Your task to perform on an android device: turn off airplane mode Image 0: 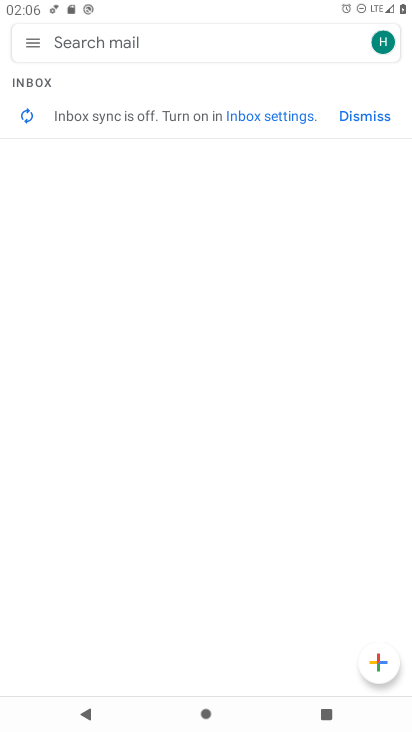
Step 0: press home button
Your task to perform on an android device: turn off airplane mode Image 1: 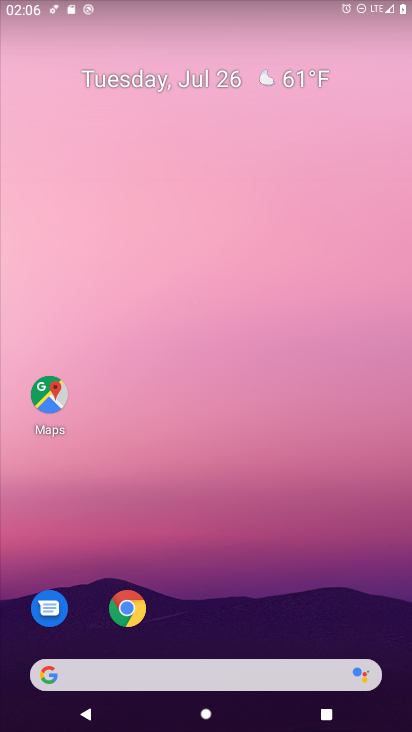
Step 1: drag from (360, 60) to (263, 413)
Your task to perform on an android device: turn off airplane mode Image 2: 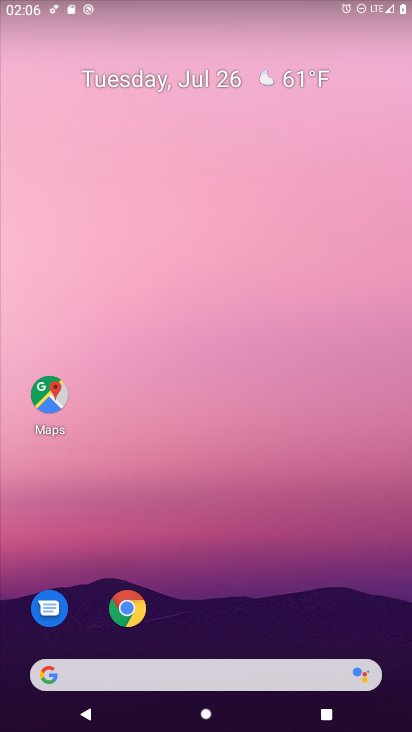
Step 2: drag from (389, 1) to (275, 381)
Your task to perform on an android device: turn off airplane mode Image 3: 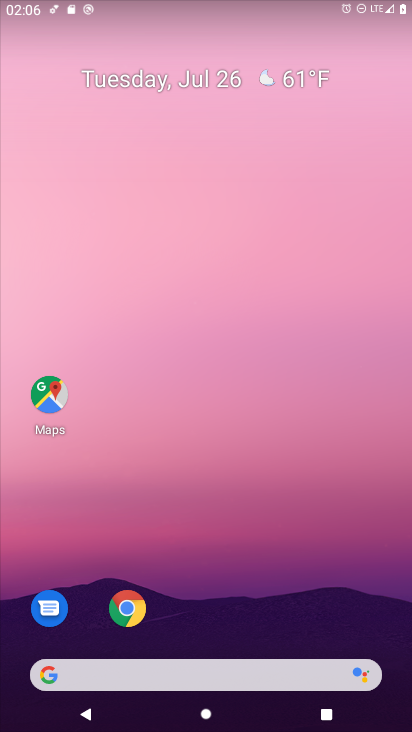
Step 3: drag from (378, 322) to (305, 327)
Your task to perform on an android device: turn off airplane mode Image 4: 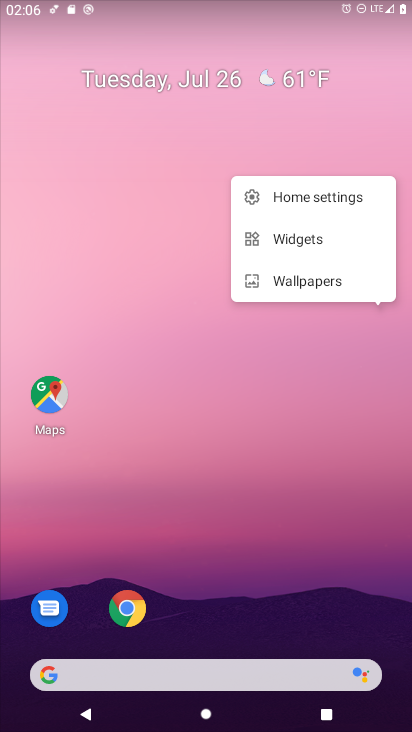
Step 4: click (232, 378)
Your task to perform on an android device: turn off airplane mode Image 5: 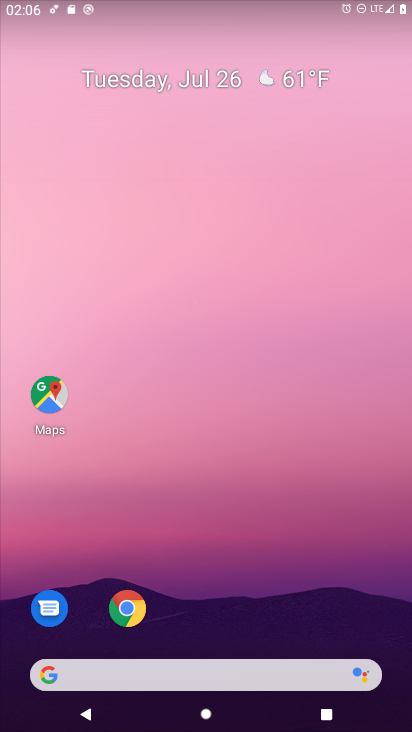
Step 5: task complete